Your task to perform on an android device: Add "amazon basics triple a" to the cart on target Image 0: 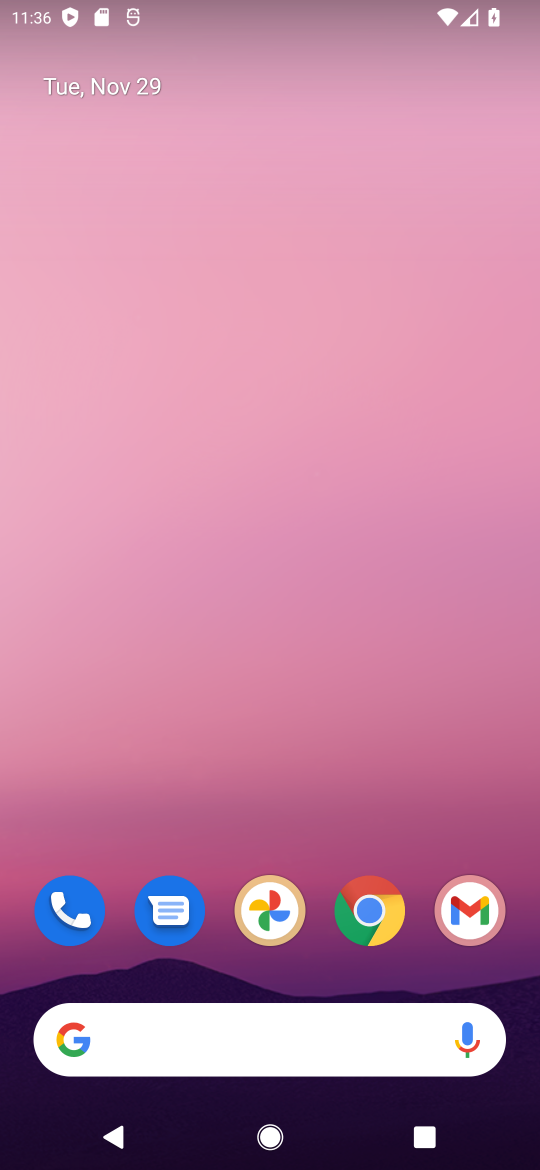
Step 0: click (381, 924)
Your task to perform on an android device: Add "amazon basics triple a" to the cart on target Image 1: 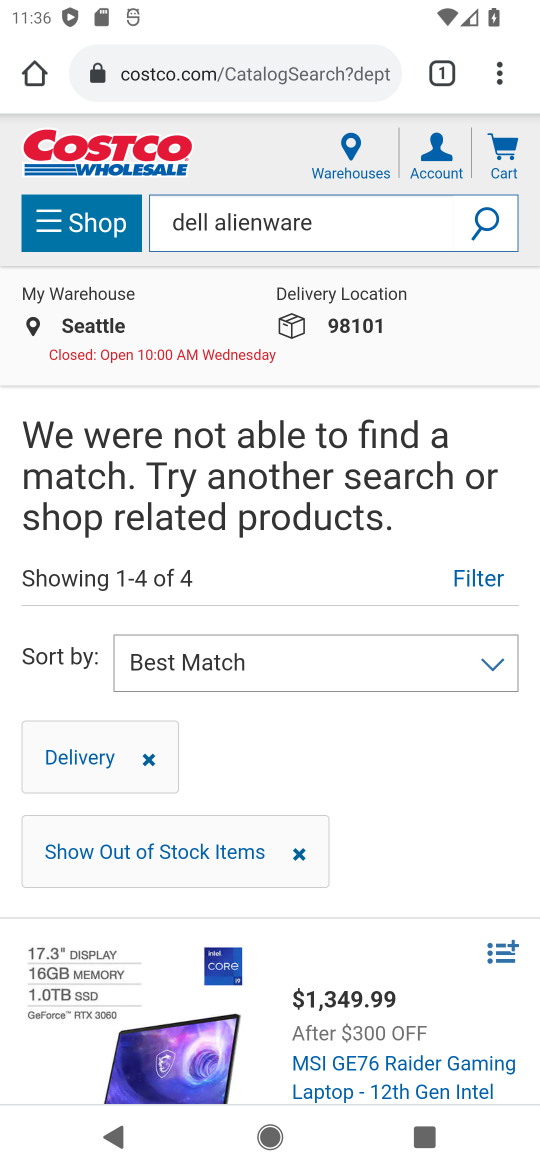
Step 1: click (225, 73)
Your task to perform on an android device: Add "amazon basics triple a" to the cart on target Image 2: 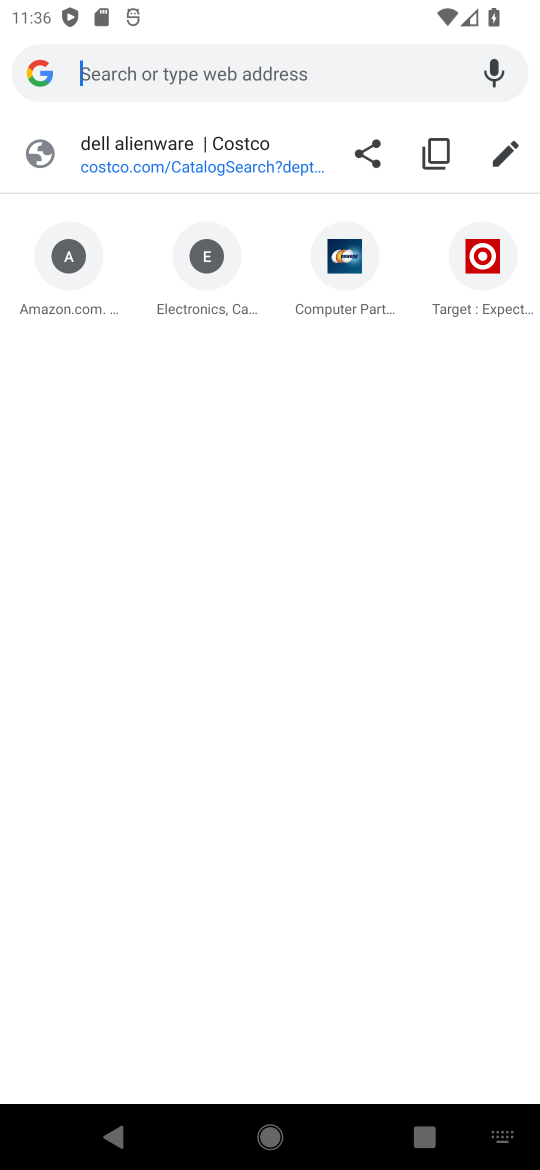
Step 2: click (488, 289)
Your task to perform on an android device: Add "amazon basics triple a" to the cart on target Image 3: 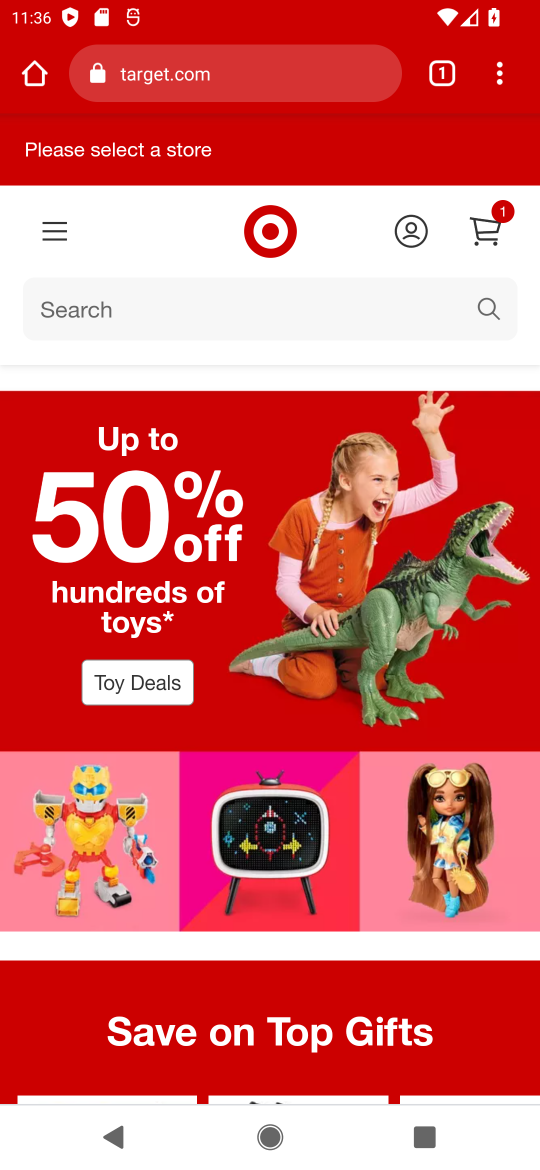
Step 3: click (98, 306)
Your task to perform on an android device: Add "amazon basics triple a" to the cart on target Image 4: 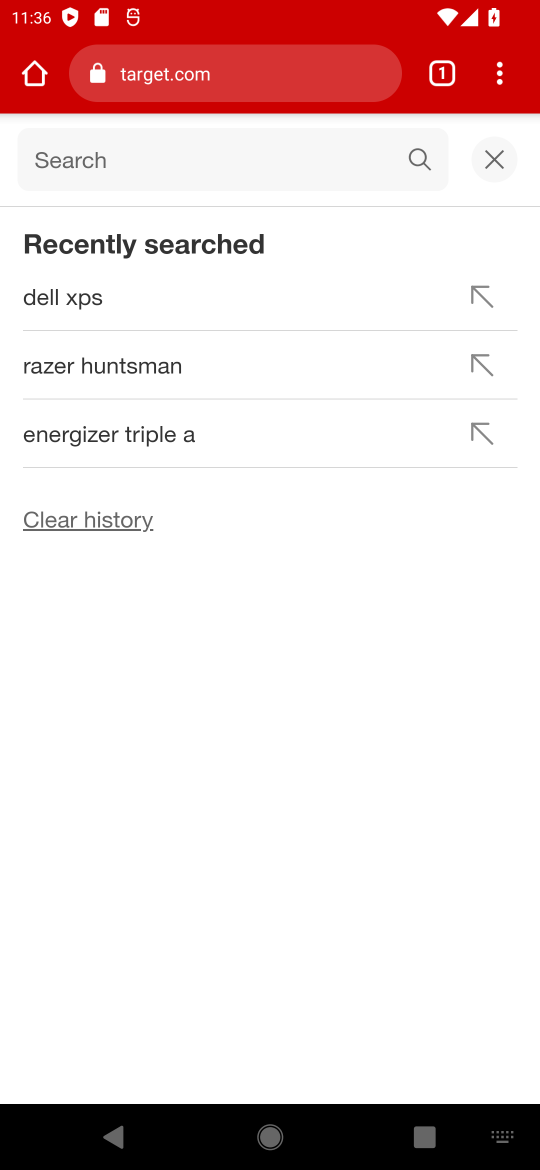
Step 4: type "amazon basics triple a"
Your task to perform on an android device: Add "amazon basics triple a" to the cart on target Image 5: 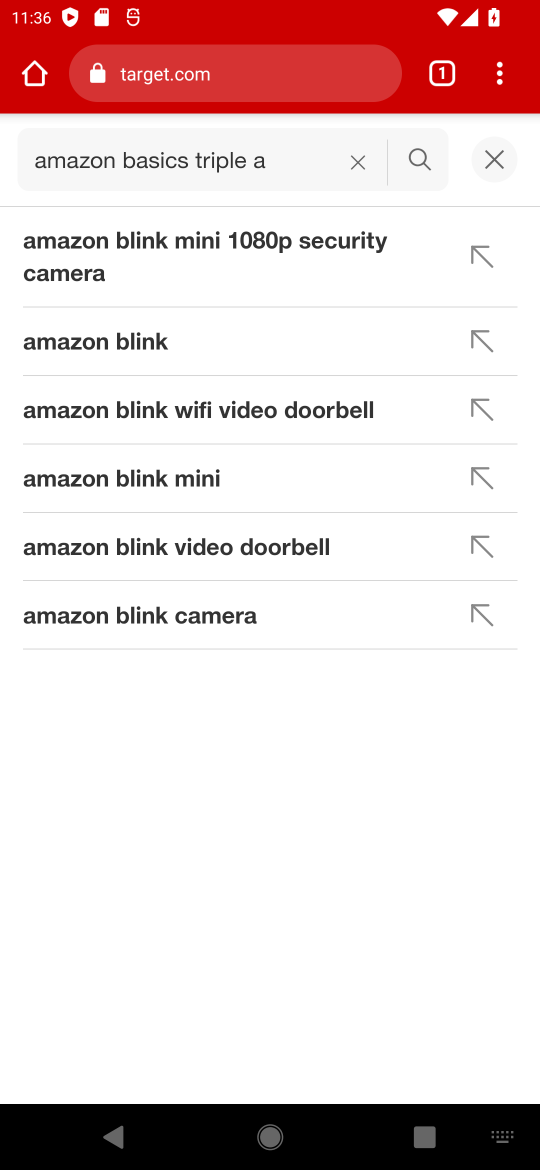
Step 5: click (415, 160)
Your task to perform on an android device: Add "amazon basics triple a" to the cart on target Image 6: 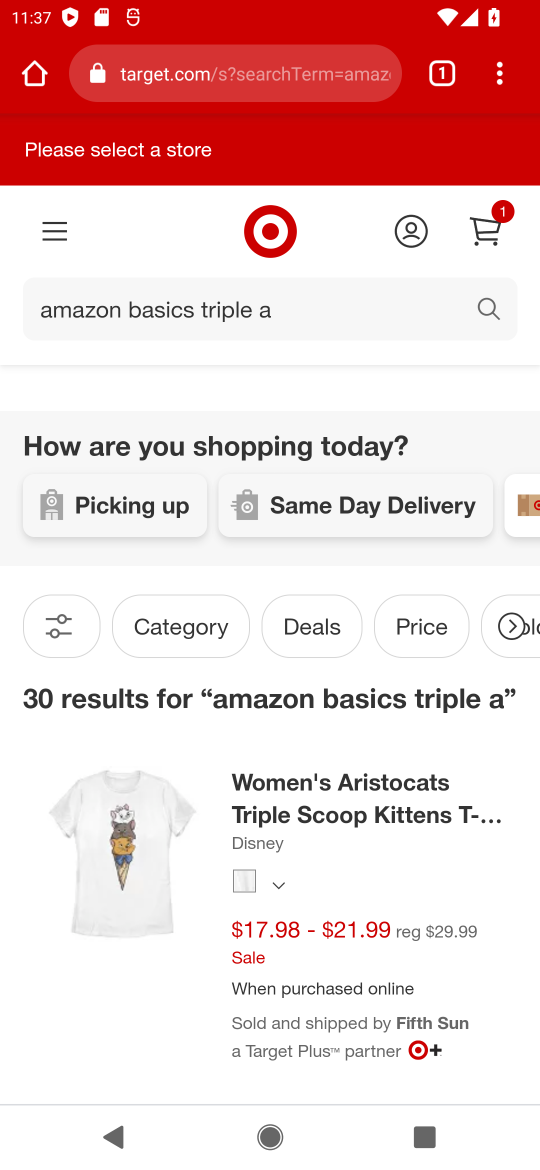
Step 6: task complete